Your task to perform on an android device: Show me the alarms in the clock app Image 0: 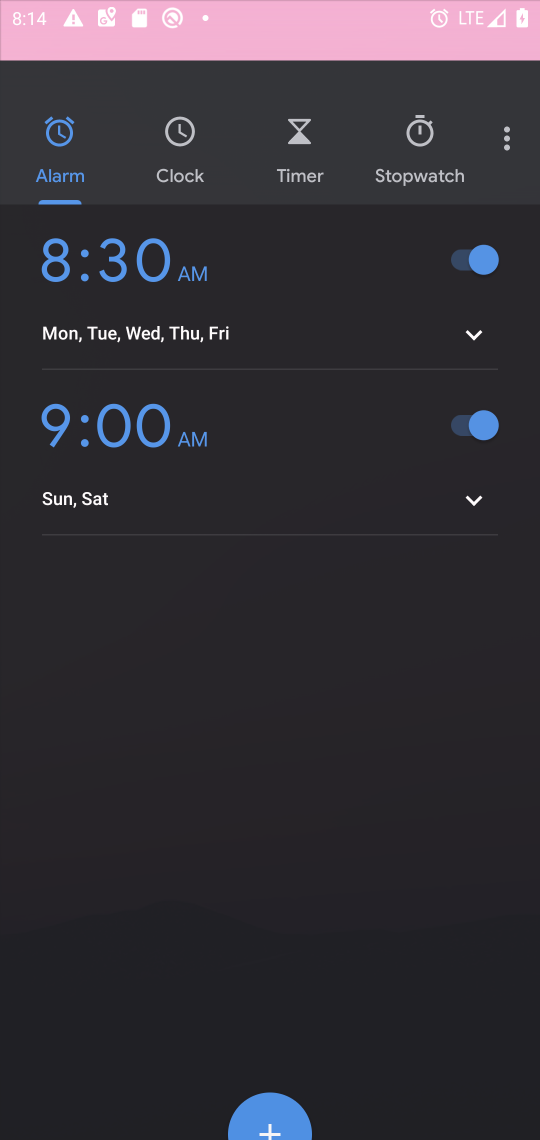
Step 0: press home button
Your task to perform on an android device: Show me the alarms in the clock app Image 1: 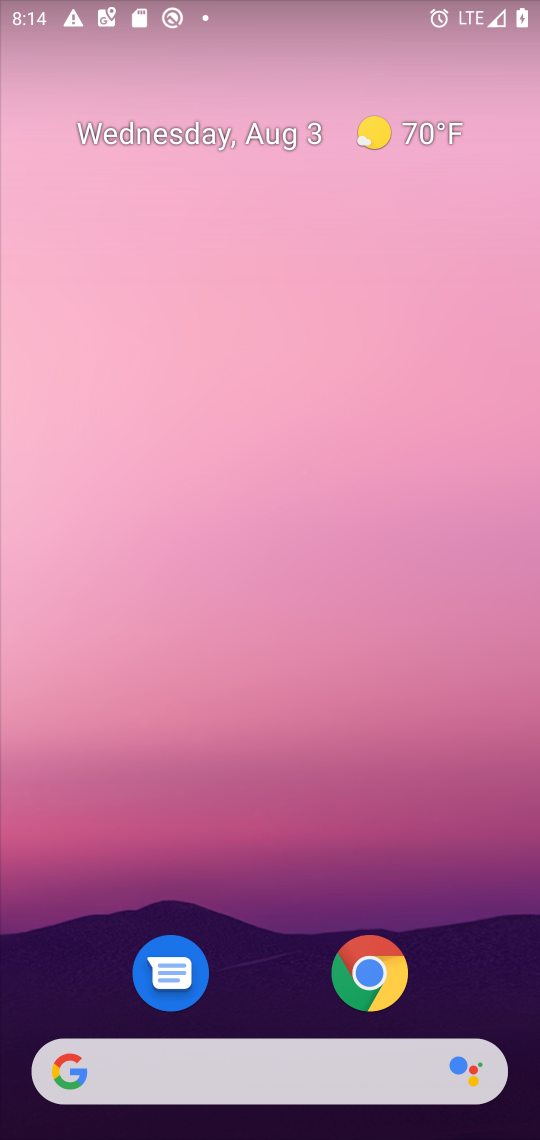
Step 1: press home button
Your task to perform on an android device: Show me the alarms in the clock app Image 2: 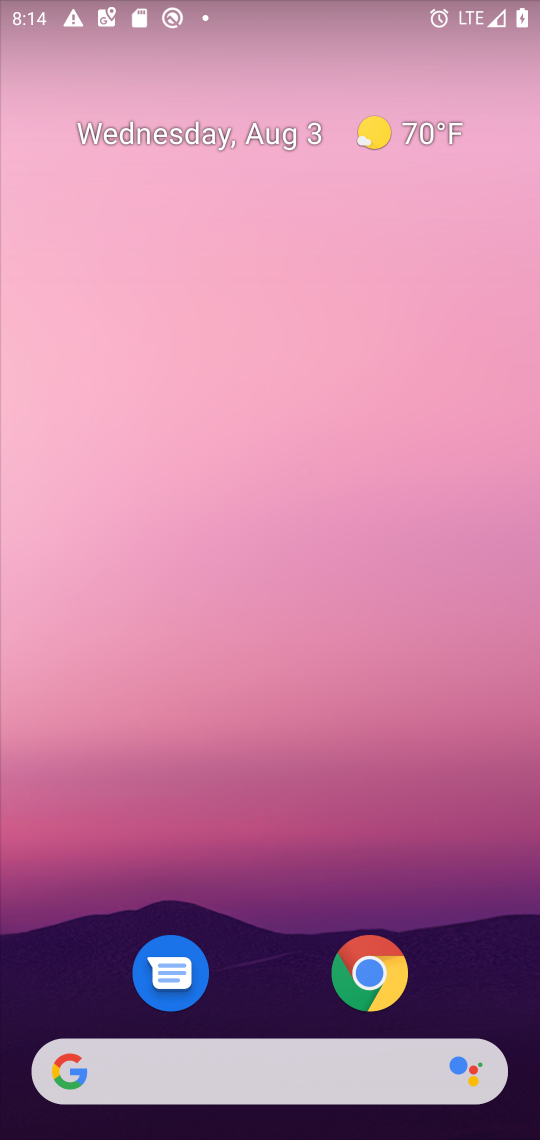
Step 2: drag from (254, 996) to (300, 9)
Your task to perform on an android device: Show me the alarms in the clock app Image 3: 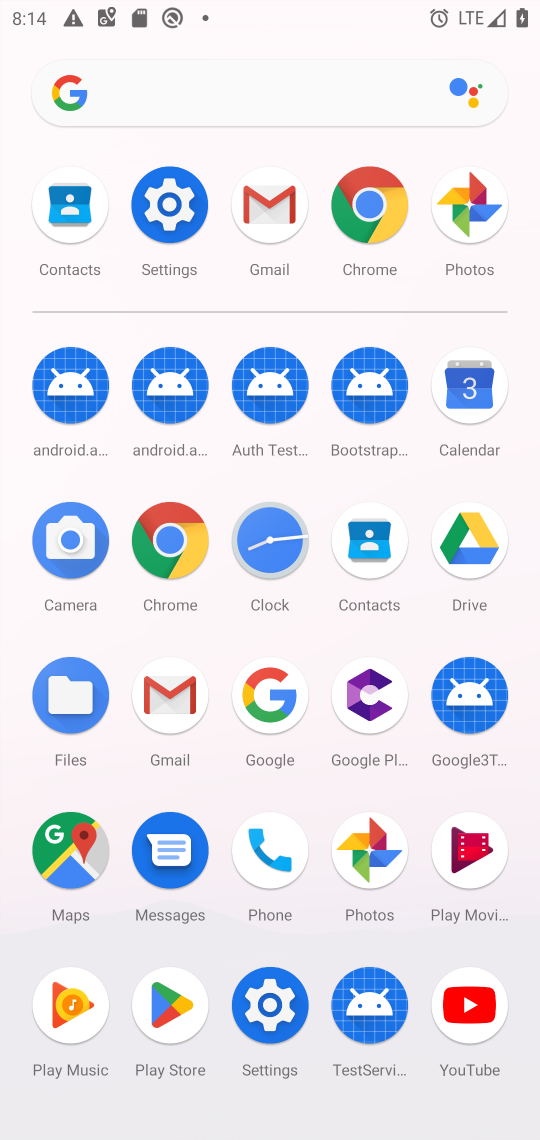
Step 3: click (261, 532)
Your task to perform on an android device: Show me the alarms in the clock app Image 4: 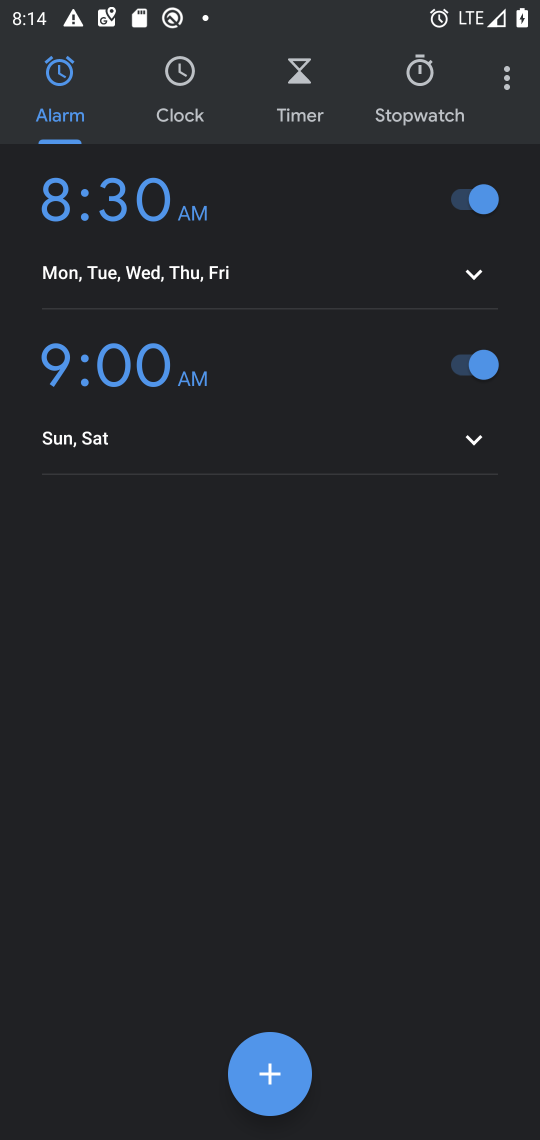
Step 4: click (70, 86)
Your task to perform on an android device: Show me the alarms in the clock app Image 5: 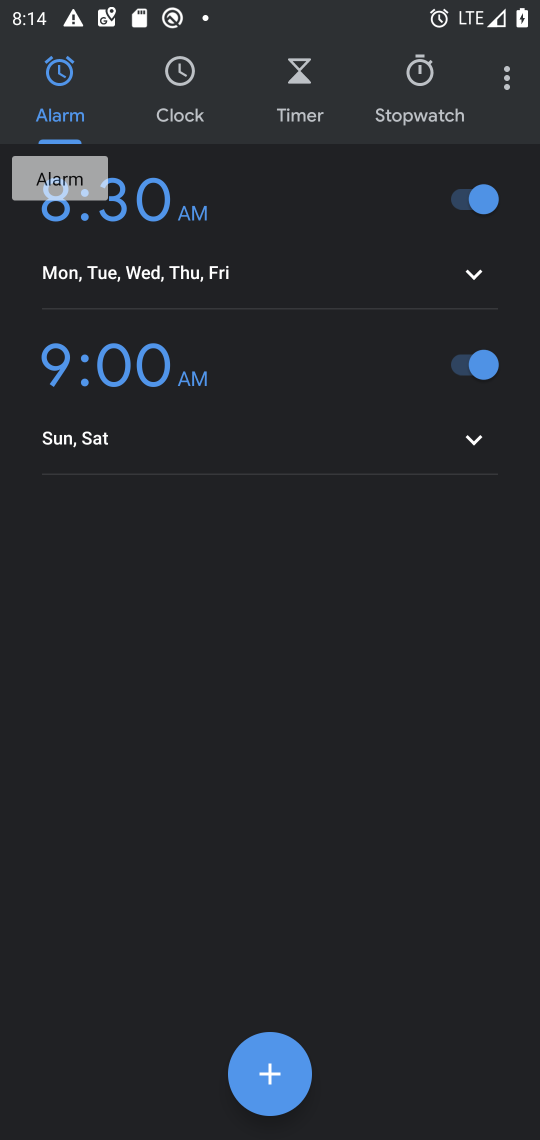
Step 5: task complete